Your task to perform on an android device: Go to display settings Image 0: 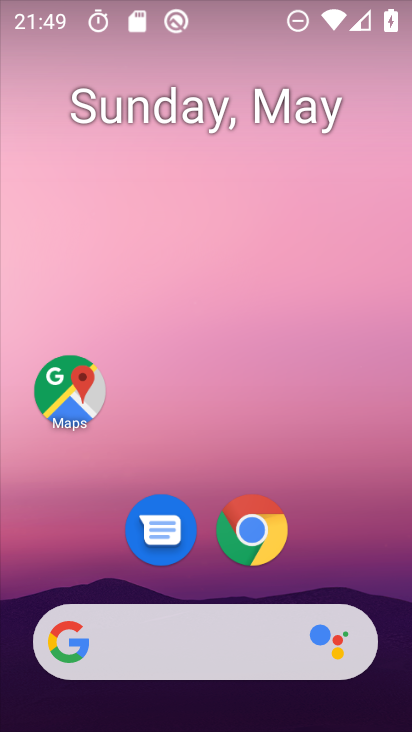
Step 0: drag from (289, 673) to (233, 104)
Your task to perform on an android device: Go to display settings Image 1: 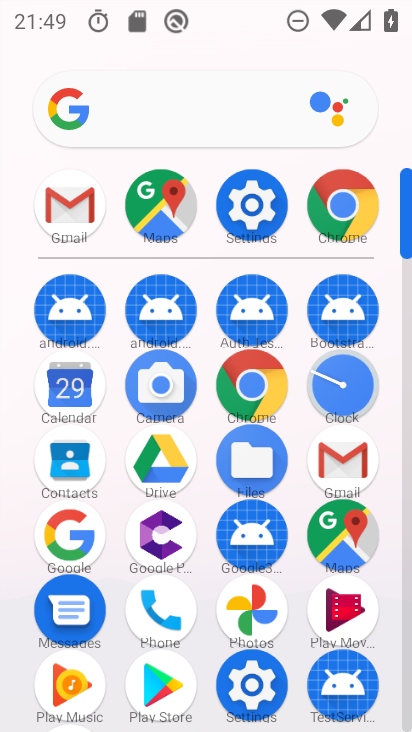
Step 1: click (242, 209)
Your task to perform on an android device: Go to display settings Image 2: 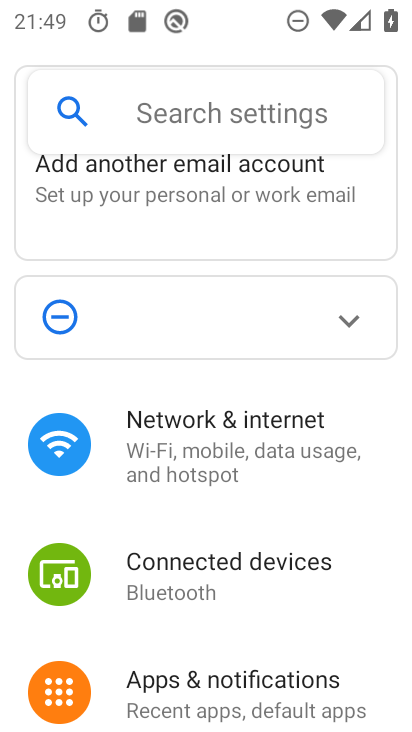
Step 2: drag from (224, 560) to (168, 366)
Your task to perform on an android device: Go to display settings Image 3: 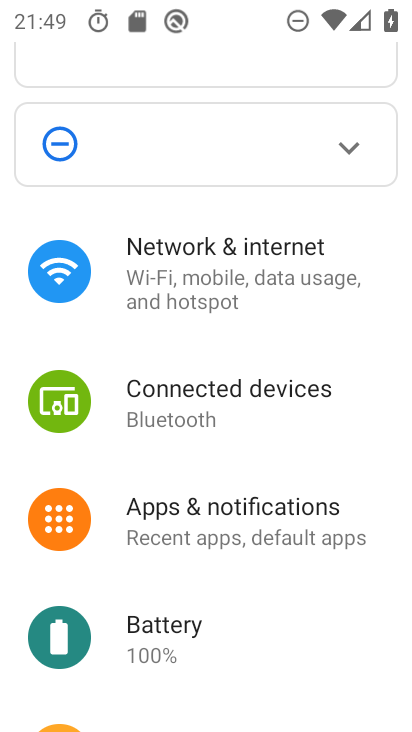
Step 3: drag from (212, 616) to (181, 454)
Your task to perform on an android device: Go to display settings Image 4: 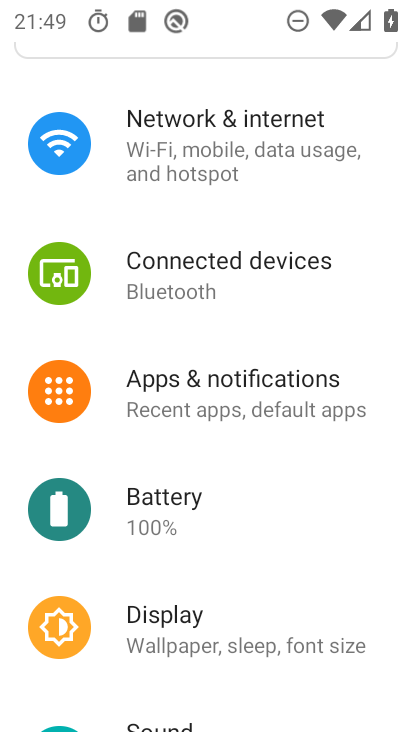
Step 4: click (181, 614)
Your task to perform on an android device: Go to display settings Image 5: 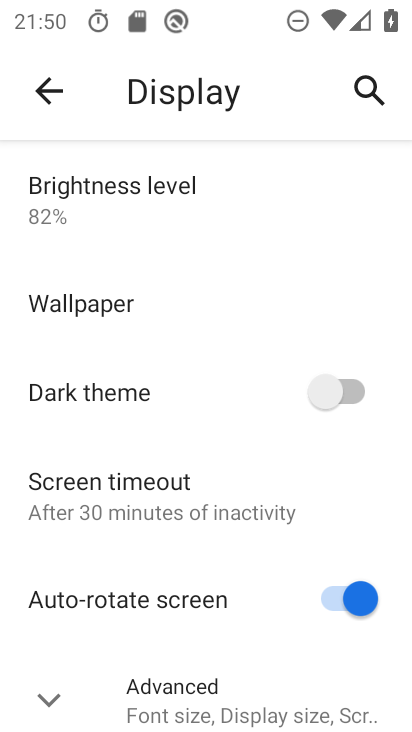
Step 5: task complete